Your task to perform on an android device: Open the Google play store app Image 0: 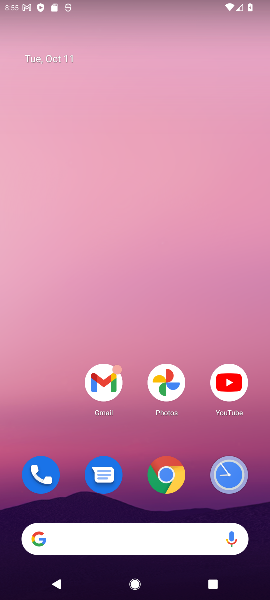
Step 0: click (268, 371)
Your task to perform on an android device: Open the Google play store app Image 1: 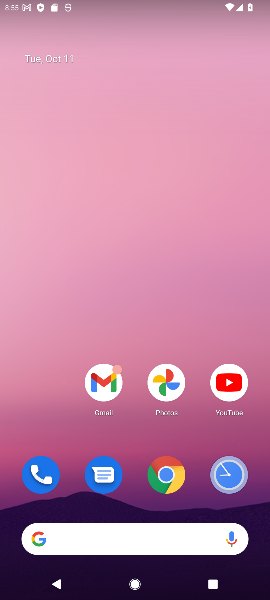
Step 1: drag from (141, 513) to (107, 128)
Your task to perform on an android device: Open the Google play store app Image 2: 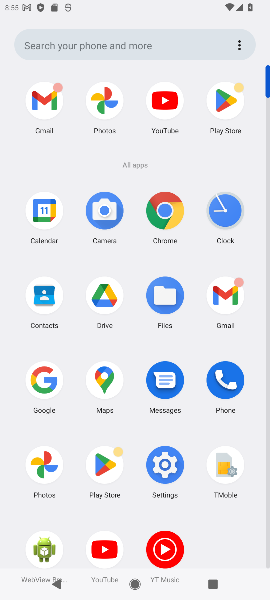
Step 2: click (115, 456)
Your task to perform on an android device: Open the Google play store app Image 3: 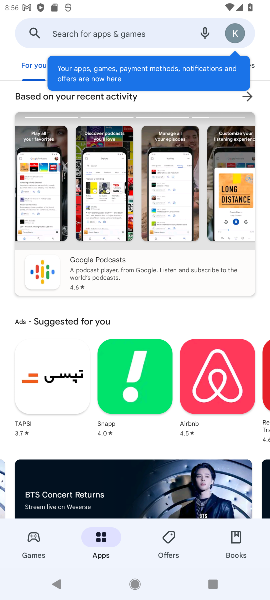
Step 3: drag from (135, 417) to (181, 105)
Your task to perform on an android device: Open the Google play store app Image 4: 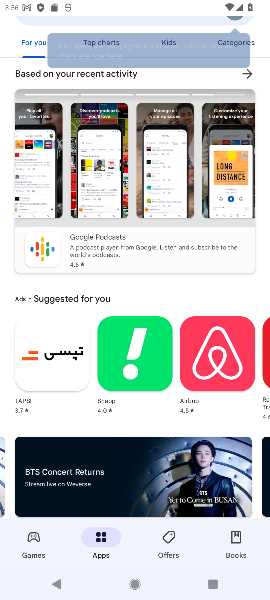
Step 4: drag from (169, 444) to (189, 147)
Your task to perform on an android device: Open the Google play store app Image 5: 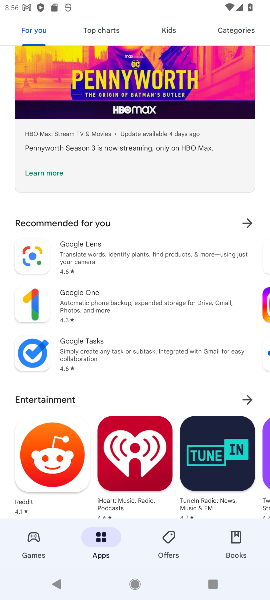
Step 5: drag from (162, 431) to (190, 81)
Your task to perform on an android device: Open the Google play store app Image 6: 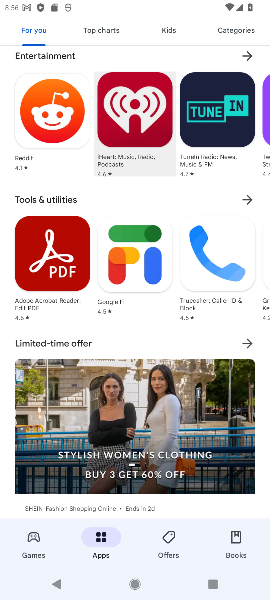
Step 6: drag from (158, 396) to (190, 129)
Your task to perform on an android device: Open the Google play store app Image 7: 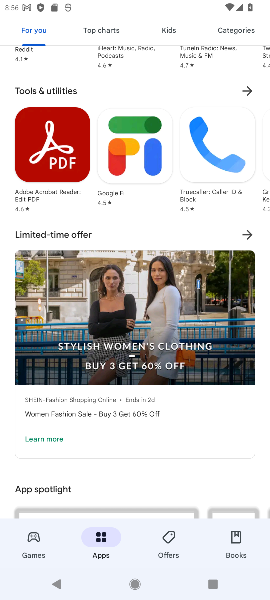
Step 7: drag from (167, 359) to (193, 126)
Your task to perform on an android device: Open the Google play store app Image 8: 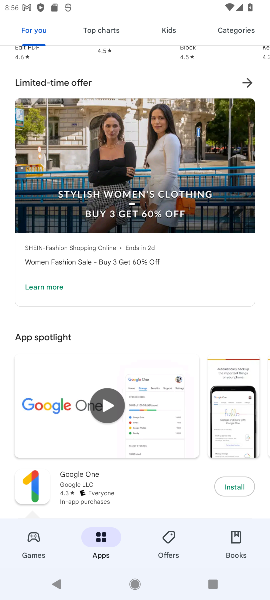
Step 8: drag from (165, 413) to (196, 116)
Your task to perform on an android device: Open the Google play store app Image 9: 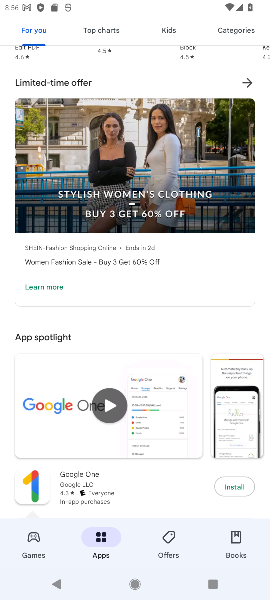
Step 9: drag from (177, 424) to (195, 127)
Your task to perform on an android device: Open the Google play store app Image 10: 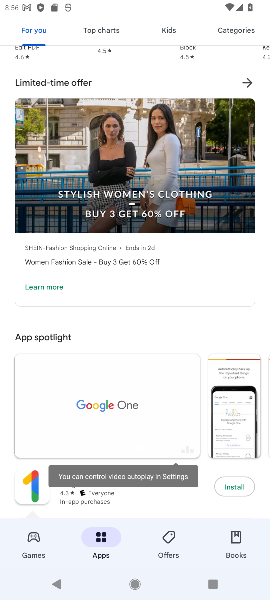
Step 10: click (95, 550)
Your task to perform on an android device: Open the Google play store app Image 11: 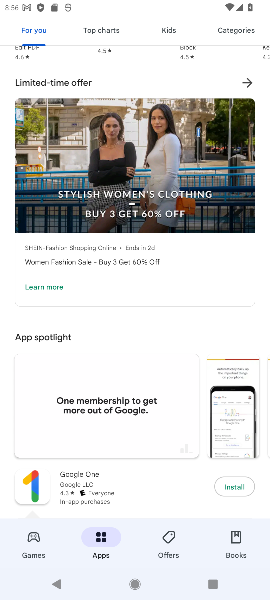
Step 11: drag from (126, 456) to (169, 158)
Your task to perform on an android device: Open the Google play store app Image 12: 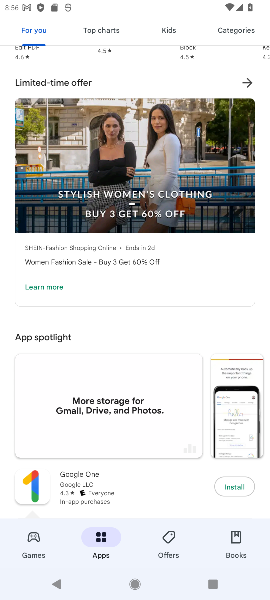
Step 12: drag from (171, 412) to (182, 151)
Your task to perform on an android device: Open the Google play store app Image 13: 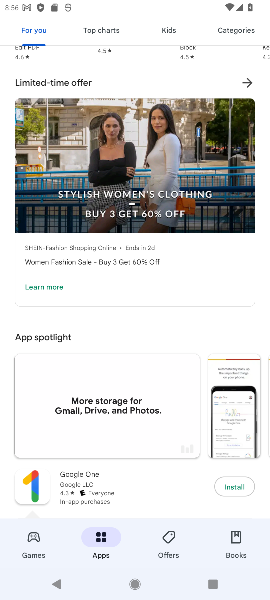
Step 13: click (107, 25)
Your task to perform on an android device: Open the Google play store app Image 14: 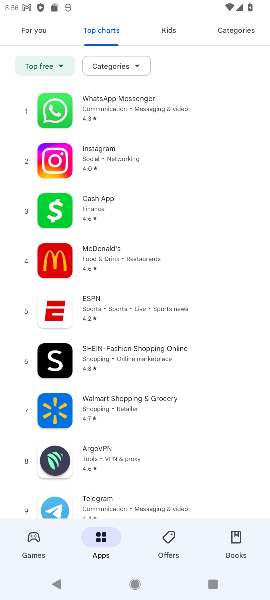
Step 14: click (179, 35)
Your task to perform on an android device: Open the Google play store app Image 15: 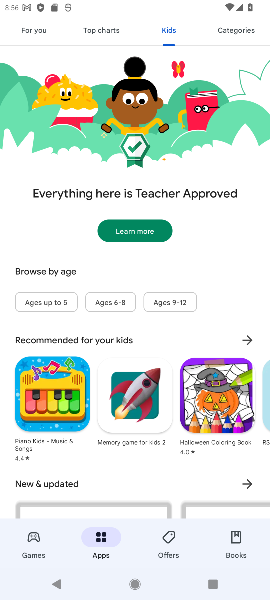
Step 15: click (256, 39)
Your task to perform on an android device: Open the Google play store app Image 16: 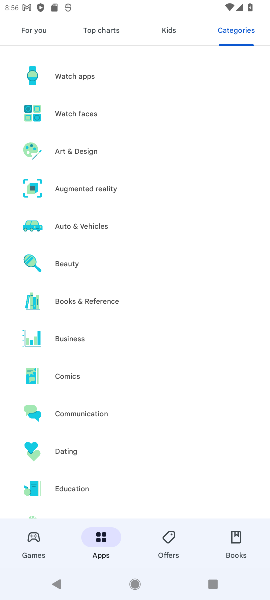
Step 16: click (97, 26)
Your task to perform on an android device: Open the Google play store app Image 17: 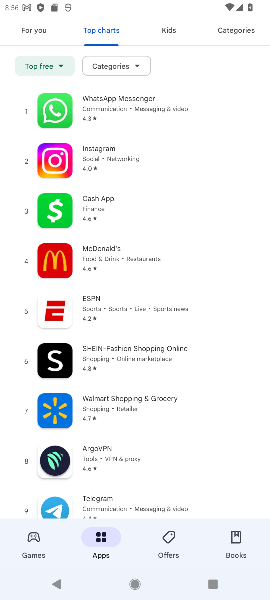
Step 17: click (81, 116)
Your task to perform on an android device: Open the Google play store app Image 18: 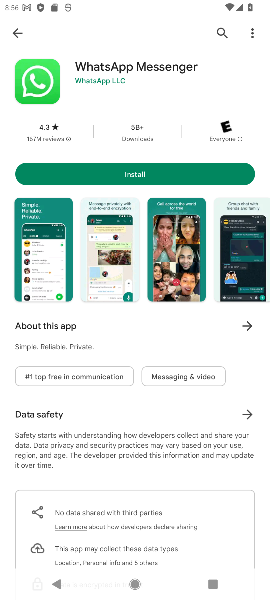
Step 18: click (9, 35)
Your task to perform on an android device: Open the Google play store app Image 19: 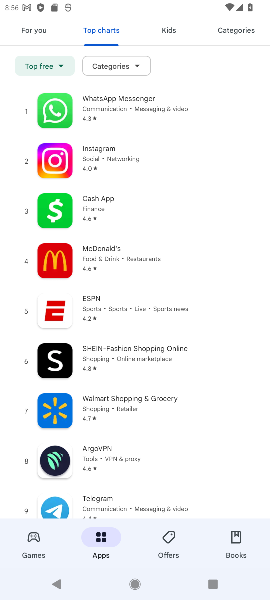
Step 19: click (174, 551)
Your task to perform on an android device: Open the Google play store app Image 20: 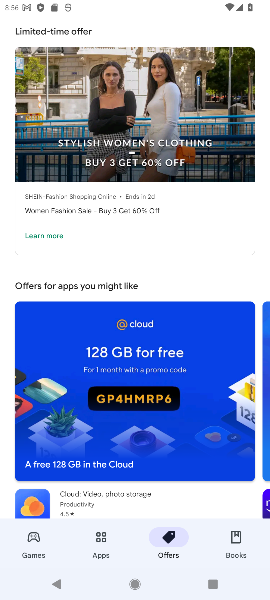
Step 20: click (232, 535)
Your task to perform on an android device: Open the Google play store app Image 21: 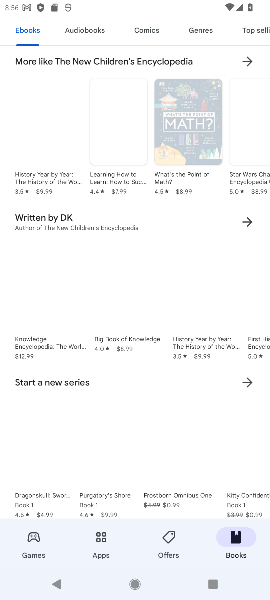
Step 21: click (35, 527)
Your task to perform on an android device: Open the Google play store app Image 22: 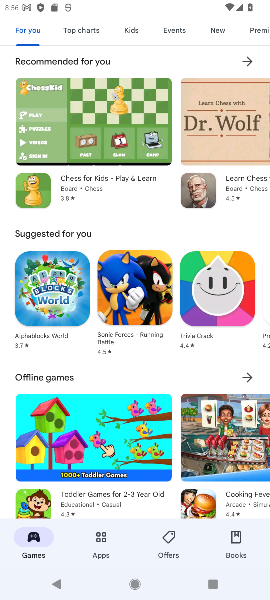
Step 22: drag from (113, 459) to (186, 79)
Your task to perform on an android device: Open the Google play store app Image 23: 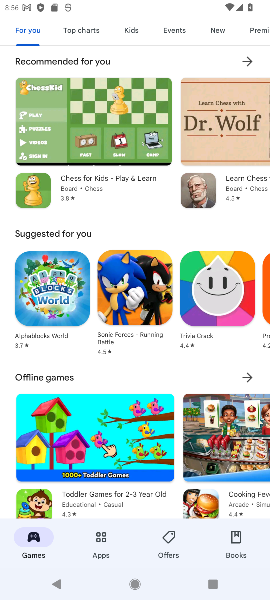
Step 23: drag from (191, 381) to (214, 99)
Your task to perform on an android device: Open the Google play store app Image 24: 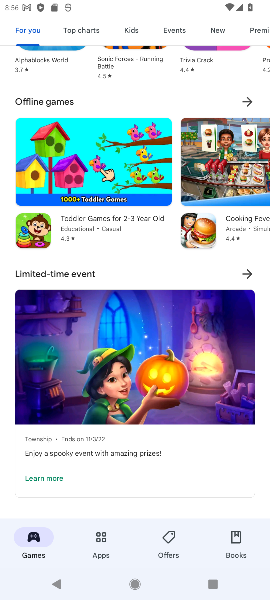
Step 24: drag from (242, 196) to (69, 181)
Your task to perform on an android device: Open the Google play store app Image 25: 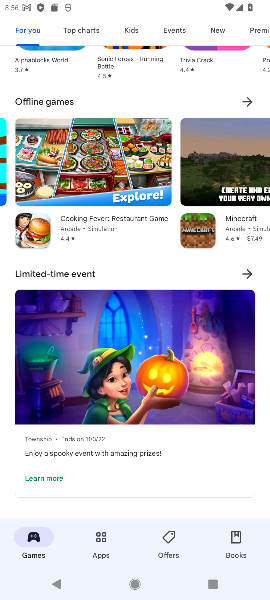
Step 25: drag from (237, 180) to (173, 175)
Your task to perform on an android device: Open the Google play store app Image 26: 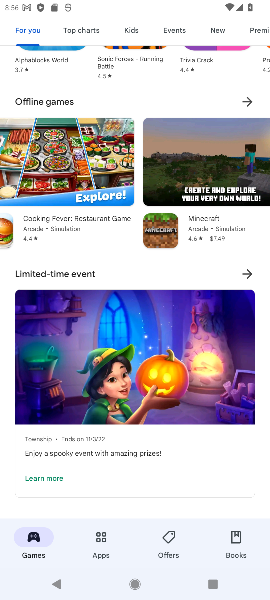
Step 26: drag from (245, 163) to (150, 158)
Your task to perform on an android device: Open the Google play store app Image 27: 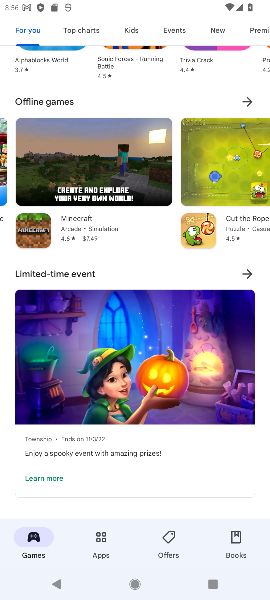
Step 27: drag from (193, 162) to (146, 157)
Your task to perform on an android device: Open the Google play store app Image 28: 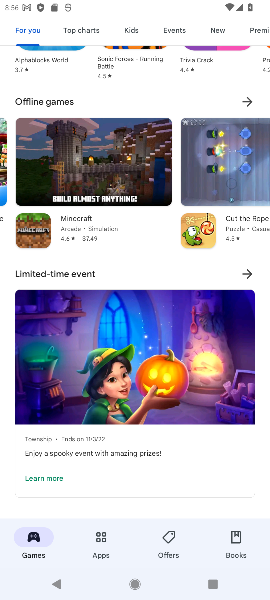
Step 28: drag from (242, 170) to (100, 172)
Your task to perform on an android device: Open the Google play store app Image 29: 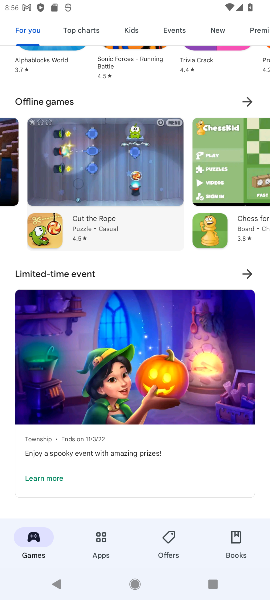
Step 29: drag from (213, 180) to (75, 176)
Your task to perform on an android device: Open the Google play store app Image 30: 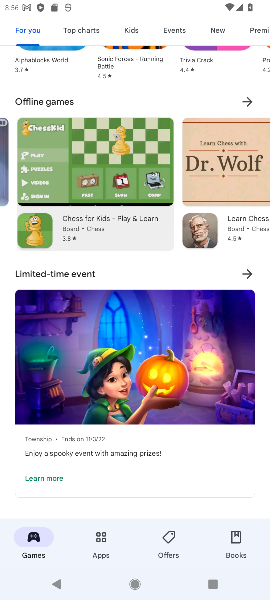
Step 30: drag from (223, 176) to (61, 172)
Your task to perform on an android device: Open the Google play store app Image 31: 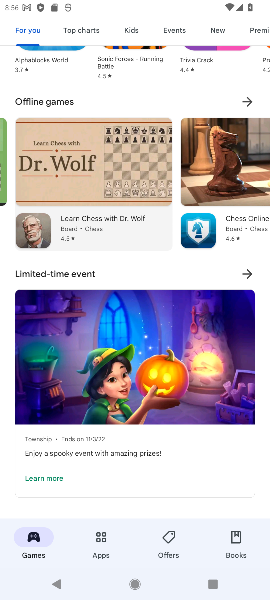
Step 31: drag from (190, 180) to (57, 180)
Your task to perform on an android device: Open the Google play store app Image 32: 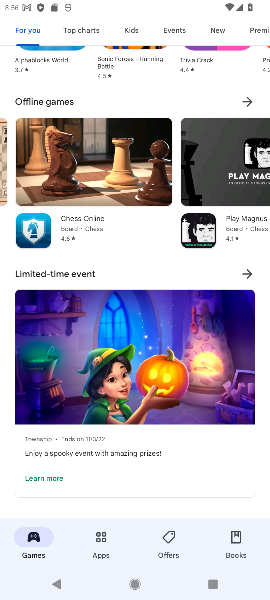
Step 32: drag from (213, 186) to (22, 180)
Your task to perform on an android device: Open the Google play store app Image 33: 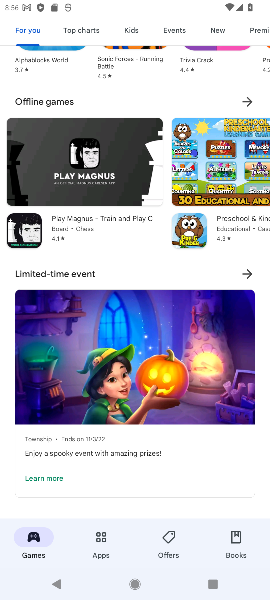
Step 33: drag from (194, 174) to (44, 179)
Your task to perform on an android device: Open the Google play store app Image 34: 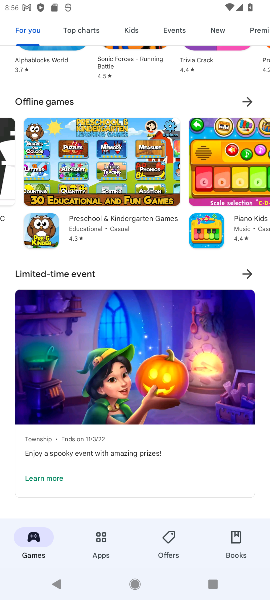
Step 34: drag from (227, 189) to (63, 187)
Your task to perform on an android device: Open the Google play store app Image 35: 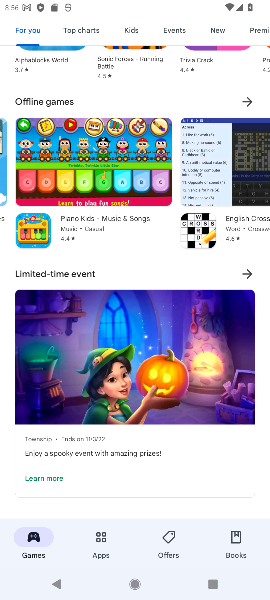
Step 35: click (107, 38)
Your task to perform on an android device: Open the Google play store app Image 36: 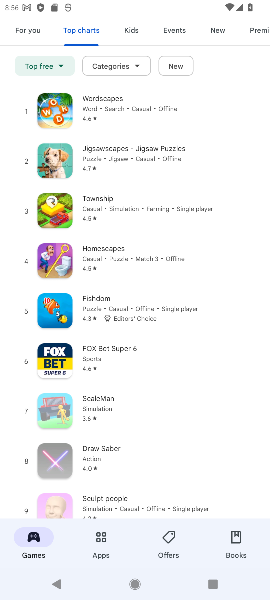
Step 36: click (123, 33)
Your task to perform on an android device: Open the Google play store app Image 37: 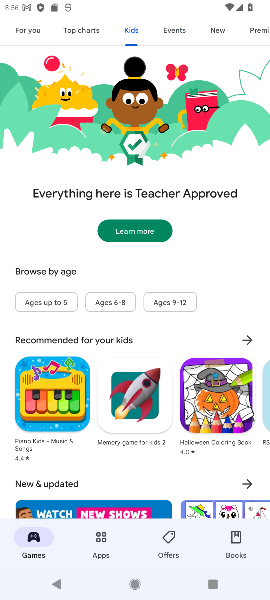
Step 37: click (196, 34)
Your task to perform on an android device: Open the Google play store app Image 38: 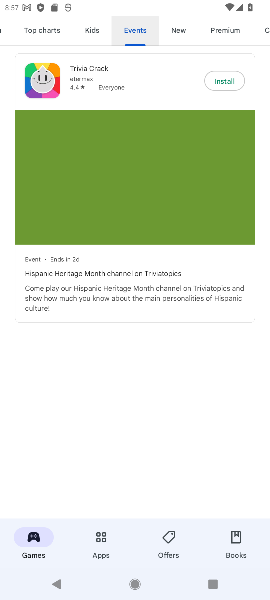
Step 38: click (206, 34)
Your task to perform on an android device: Open the Google play store app Image 39: 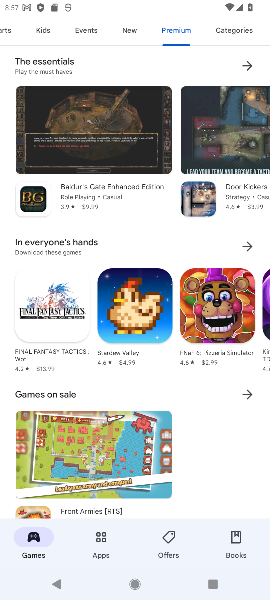
Step 39: click (250, 41)
Your task to perform on an android device: Open the Google play store app Image 40: 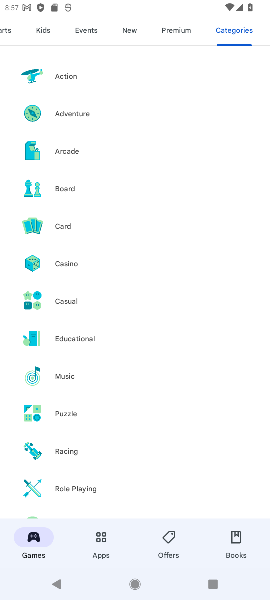
Step 40: click (7, 38)
Your task to perform on an android device: Open the Google play store app Image 41: 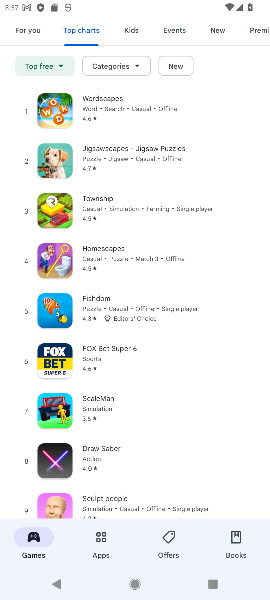
Step 41: click (36, 34)
Your task to perform on an android device: Open the Google play store app Image 42: 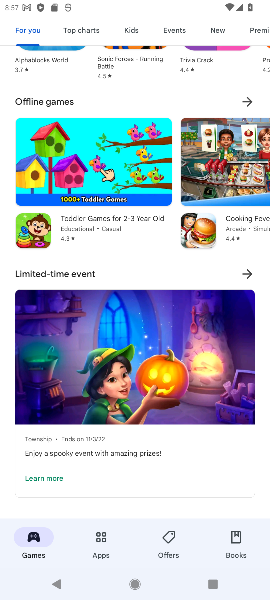
Step 42: task complete